Your task to perform on an android device: Open Google Chrome and open the bookmarks view Image 0: 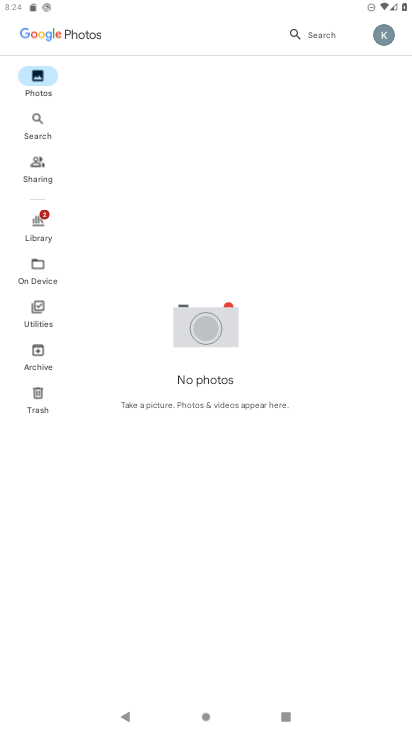
Step 0: press home button
Your task to perform on an android device: Open Google Chrome and open the bookmarks view Image 1: 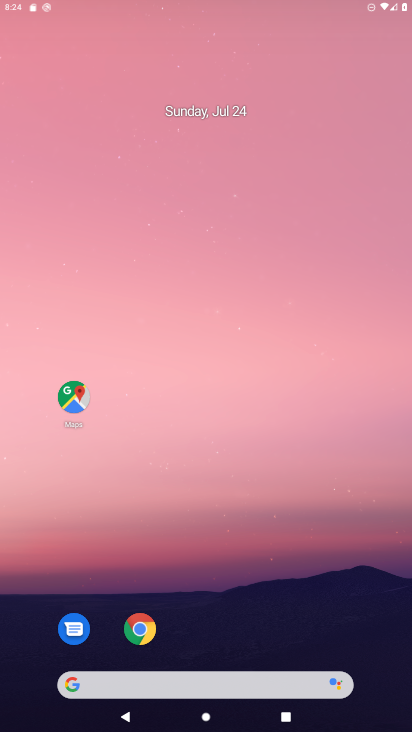
Step 1: drag from (392, 541) to (209, 74)
Your task to perform on an android device: Open Google Chrome and open the bookmarks view Image 2: 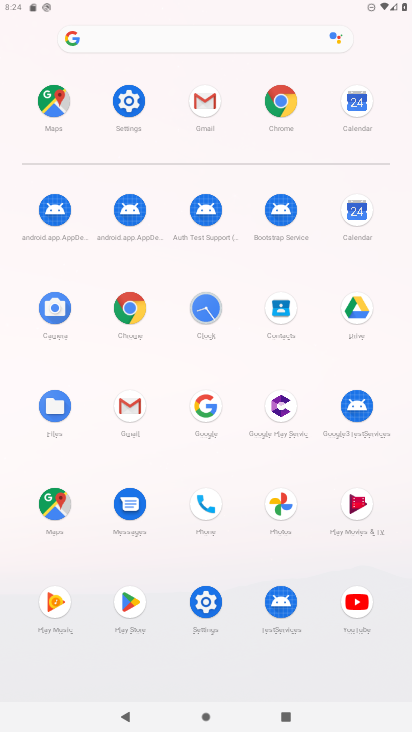
Step 2: click (283, 111)
Your task to perform on an android device: Open Google Chrome and open the bookmarks view Image 3: 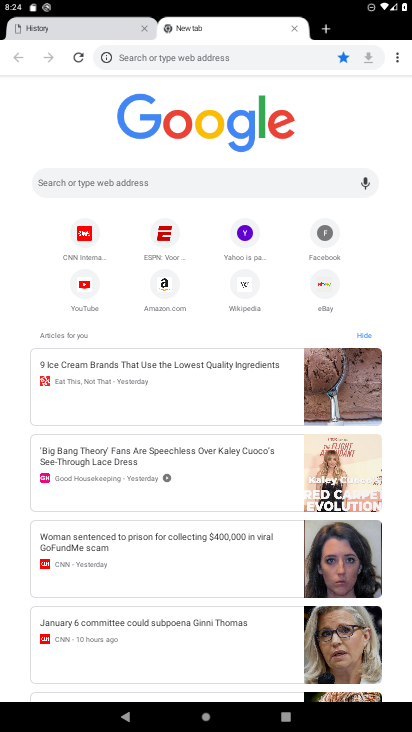
Step 3: click (398, 50)
Your task to perform on an android device: Open Google Chrome and open the bookmarks view Image 4: 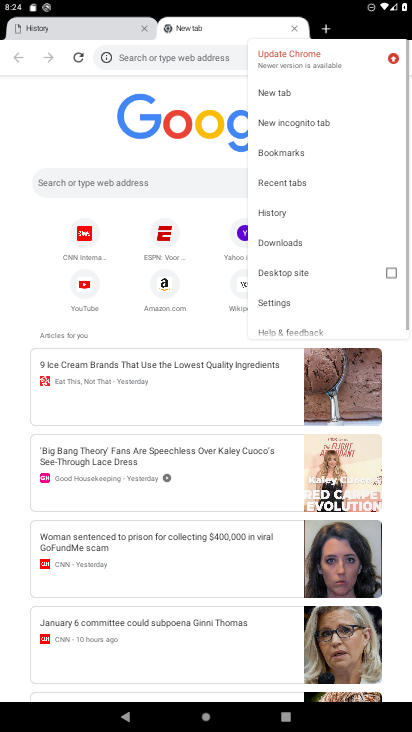
Step 4: click (282, 160)
Your task to perform on an android device: Open Google Chrome and open the bookmarks view Image 5: 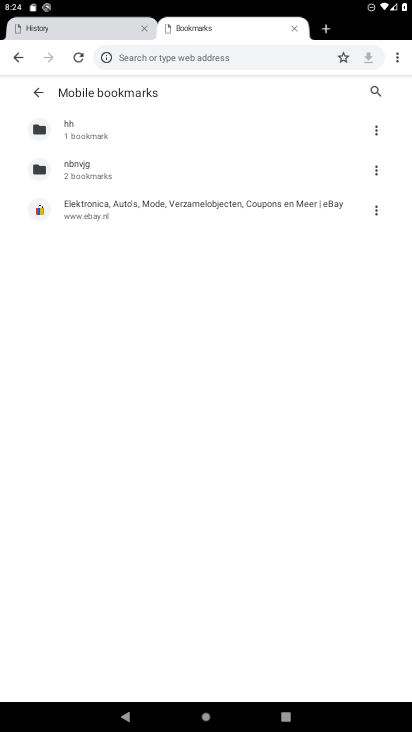
Step 5: task complete